Your task to perform on an android device: Open calendar and show me the third week of next month Image 0: 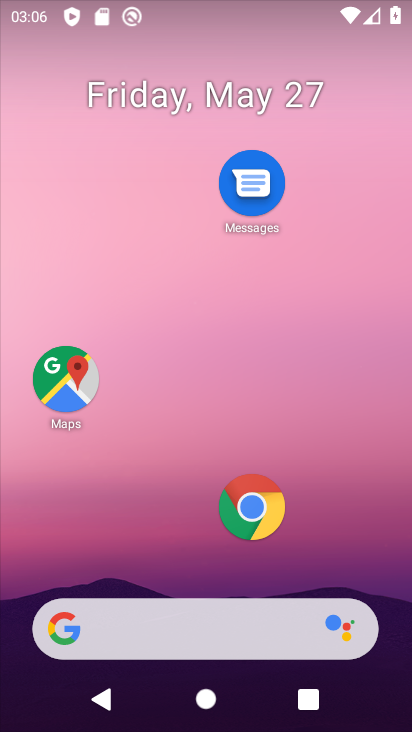
Step 0: click (246, 83)
Your task to perform on an android device: Open calendar and show me the third week of next month Image 1: 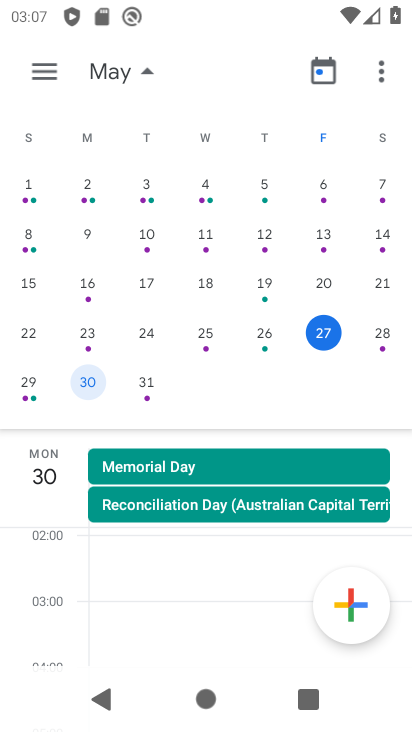
Step 1: drag from (357, 255) to (0, 291)
Your task to perform on an android device: Open calendar and show me the third week of next month Image 2: 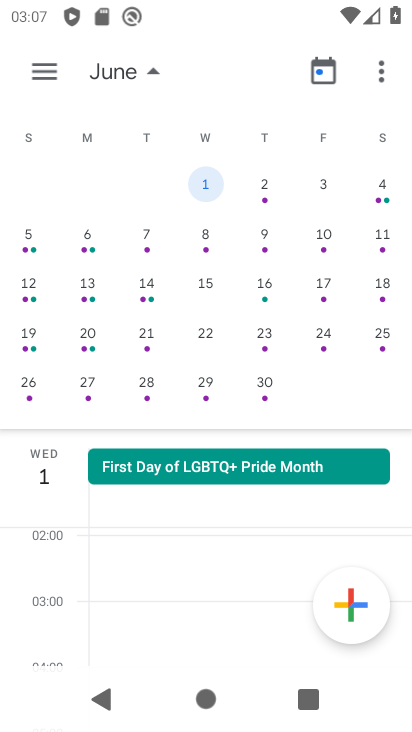
Step 2: click (262, 293)
Your task to perform on an android device: Open calendar and show me the third week of next month Image 3: 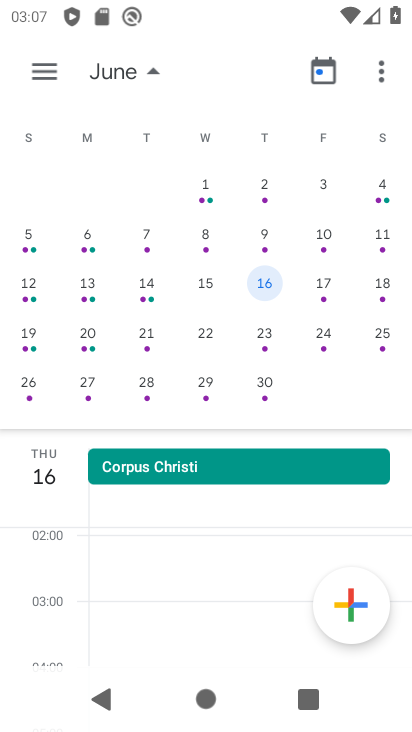
Step 3: task complete